Your task to perform on an android device: turn on translation in the chrome app Image 0: 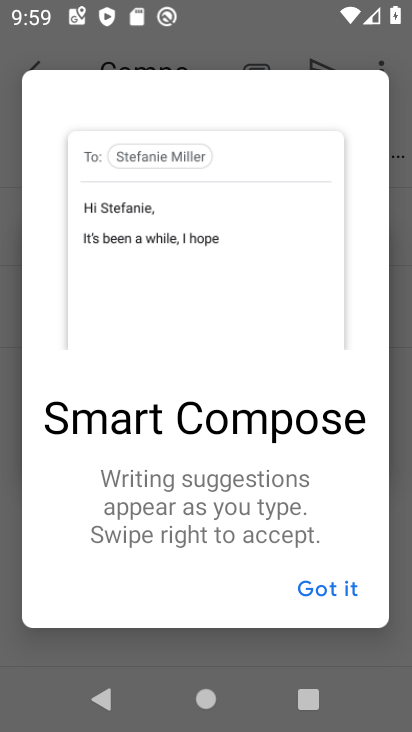
Step 0: click (327, 593)
Your task to perform on an android device: turn on translation in the chrome app Image 1: 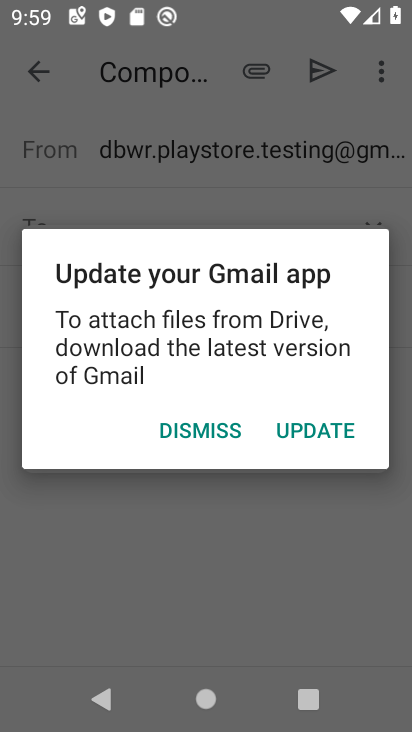
Step 1: press home button
Your task to perform on an android device: turn on translation in the chrome app Image 2: 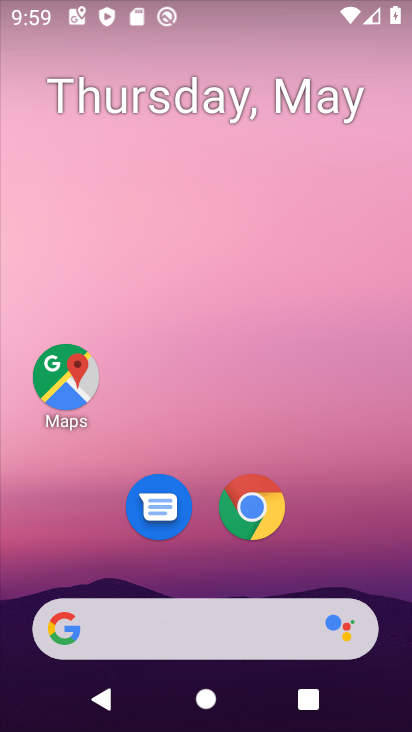
Step 2: drag from (218, 560) to (297, 84)
Your task to perform on an android device: turn on translation in the chrome app Image 3: 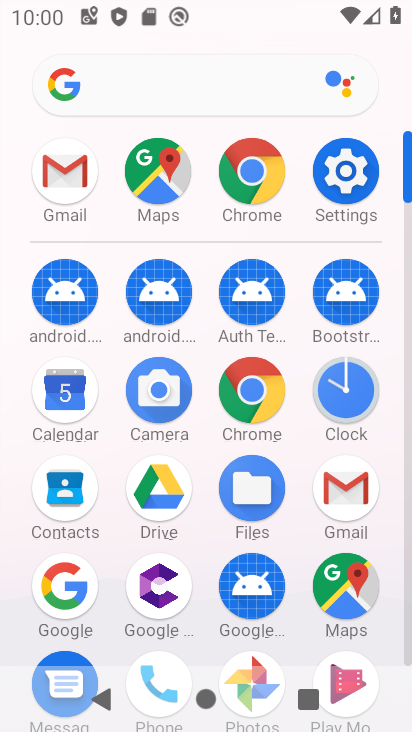
Step 3: click (256, 178)
Your task to perform on an android device: turn on translation in the chrome app Image 4: 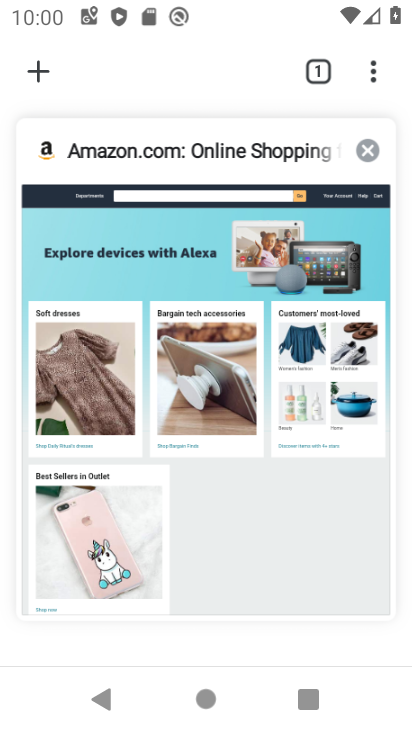
Step 4: click (282, 204)
Your task to perform on an android device: turn on translation in the chrome app Image 5: 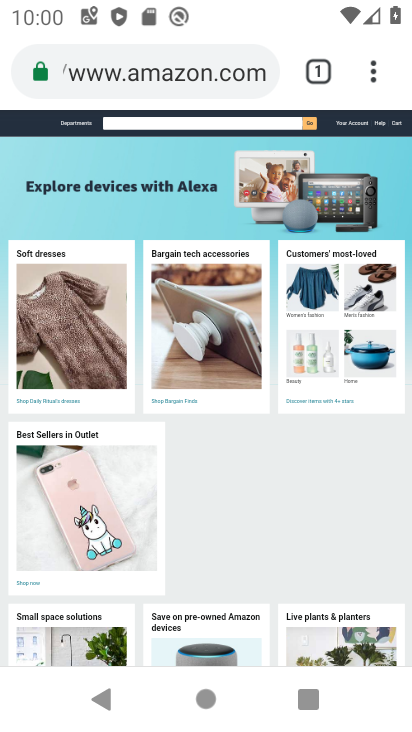
Step 5: click (381, 79)
Your task to perform on an android device: turn on translation in the chrome app Image 6: 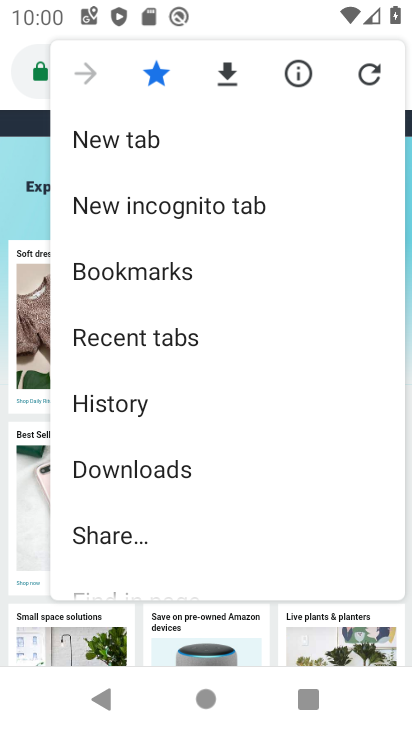
Step 6: drag from (199, 401) to (291, 81)
Your task to perform on an android device: turn on translation in the chrome app Image 7: 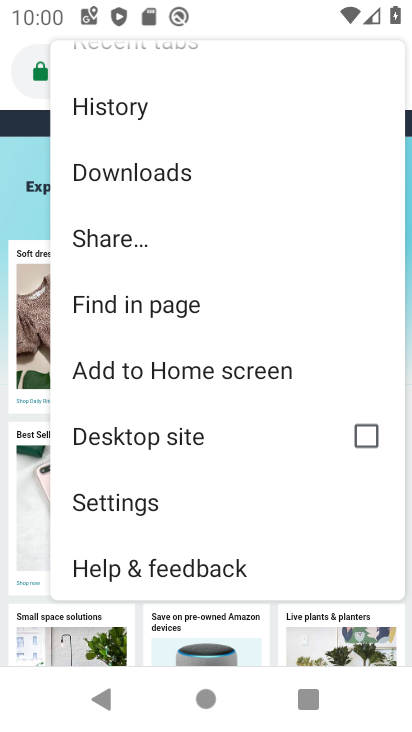
Step 7: click (237, 486)
Your task to perform on an android device: turn on translation in the chrome app Image 8: 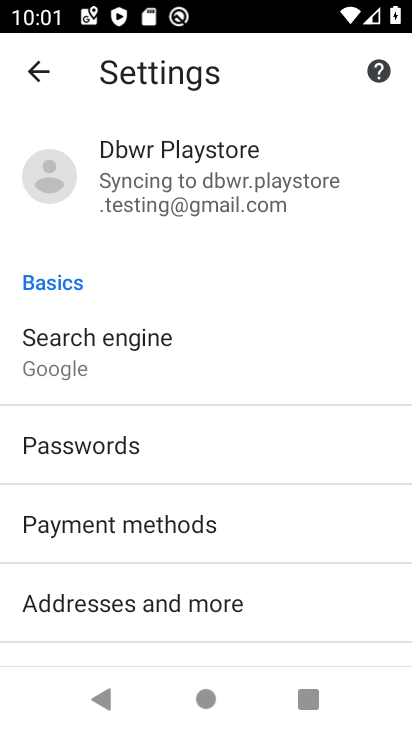
Step 8: click (233, 301)
Your task to perform on an android device: turn on translation in the chrome app Image 9: 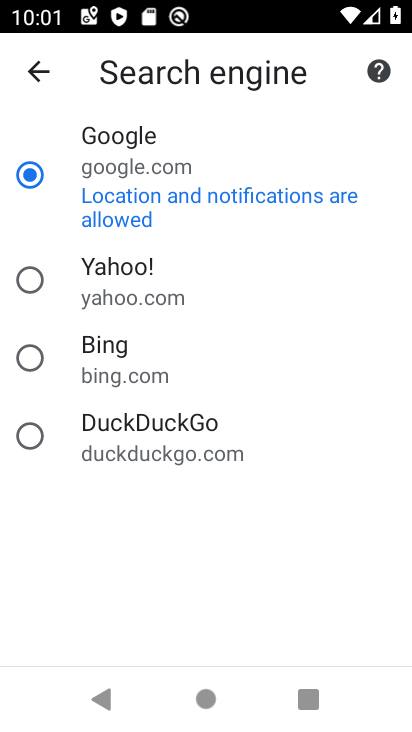
Step 9: task complete